Your task to perform on an android device: refresh tabs in the chrome app Image 0: 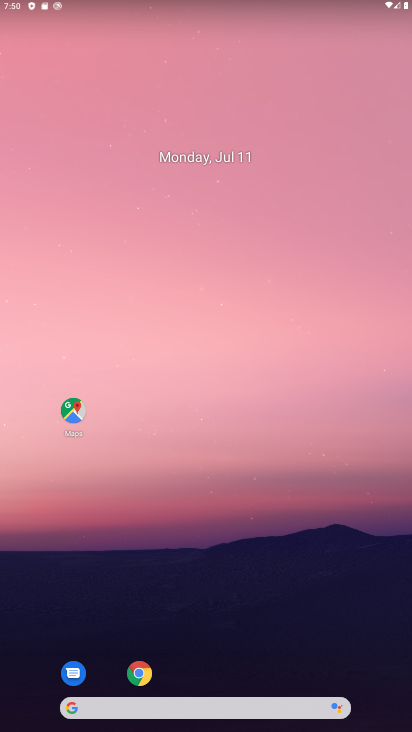
Step 0: press home button
Your task to perform on an android device: refresh tabs in the chrome app Image 1: 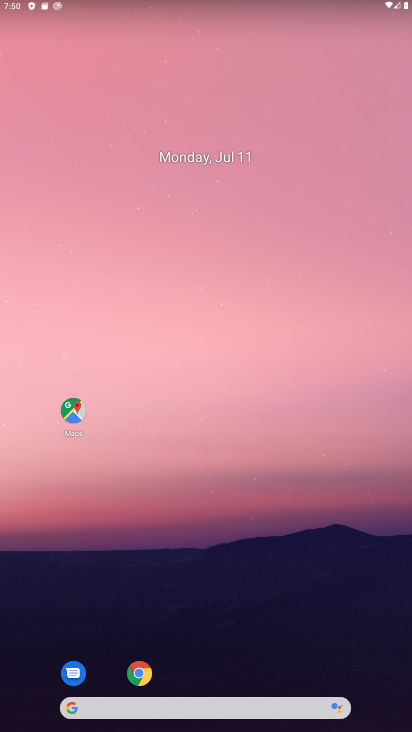
Step 1: click (134, 672)
Your task to perform on an android device: refresh tabs in the chrome app Image 2: 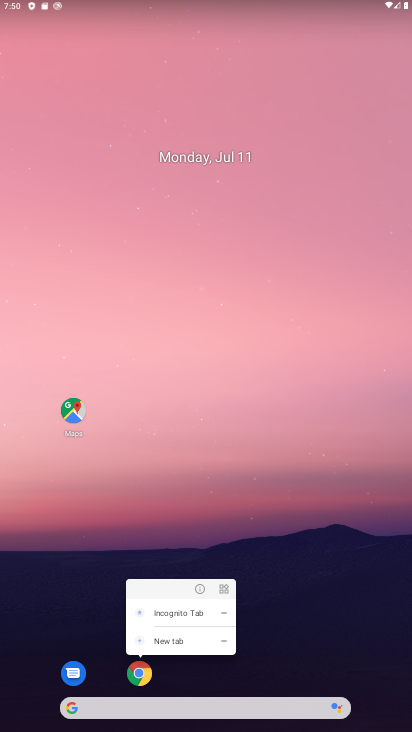
Step 2: click (140, 672)
Your task to perform on an android device: refresh tabs in the chrome app Image 3: 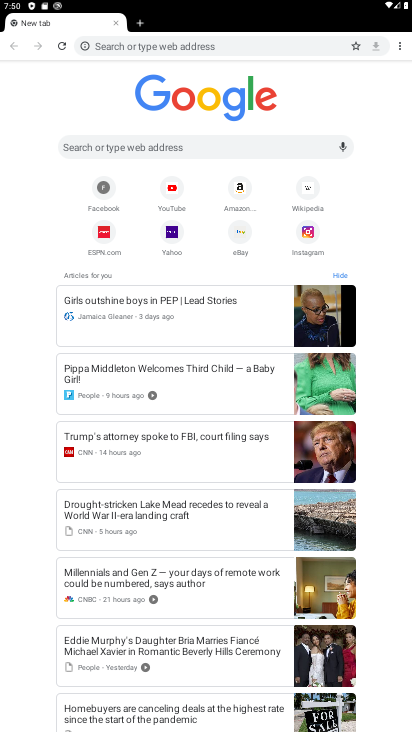
Step 3: click (400, 45)
Your task to perform on an android device: refresh tabs in the chrome app Image 4: 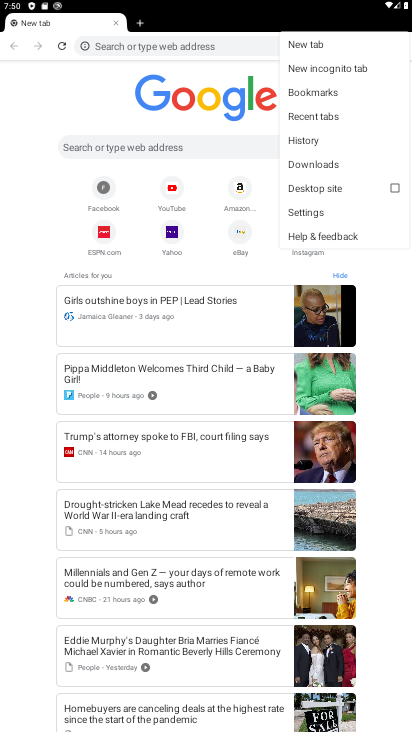
Step 4: click (344, 116)
Your task to perform on an android device: refresh tabs in the chrome app Image 5: 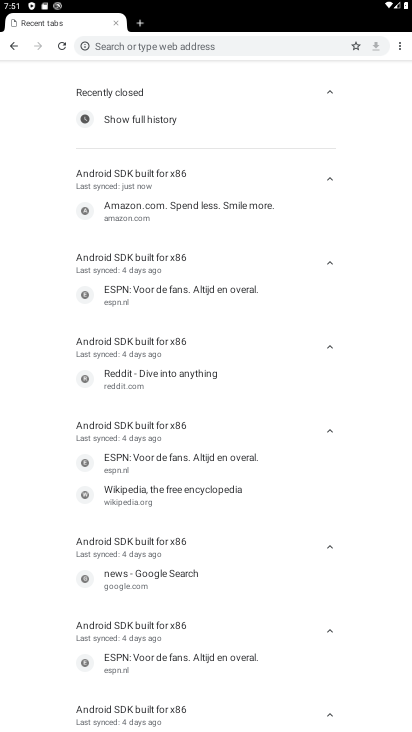
Step 5: task complete